Your task to perform on an android device: Go to battery settings Image 0: 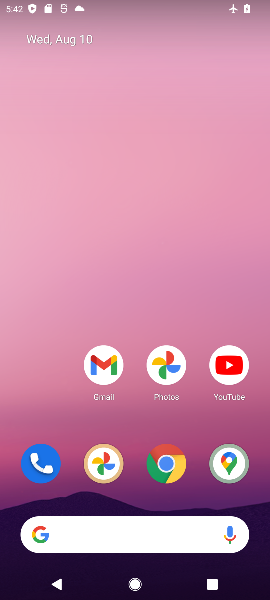
Step 0: drag from (135, 496) to (127, 102)
Your task to perform on an android device: Go to battery settings Image 1: 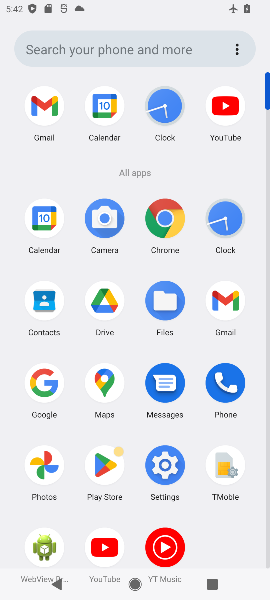
Step 1: click (166, 466)
Your task to perform on an android device: Go to battery settings Image 2: 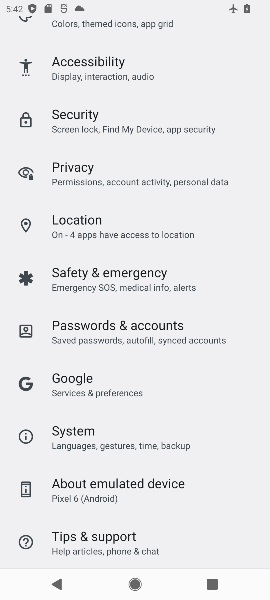
Step 2: drag from (198, 89) to (178, 427)
Your task to perform on an android device: Go to battery settings Image 3: 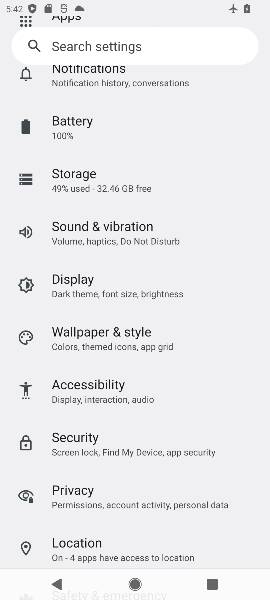
Step 3: click (75, 125)
Your task to perform on an android device: Go to battery settings Image 4: 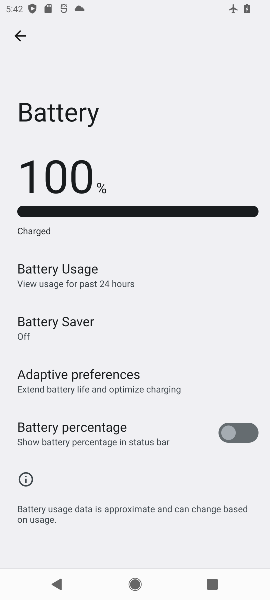
Step 4: task complete